Your task to perform on an android device: Open notification settings Image 0: 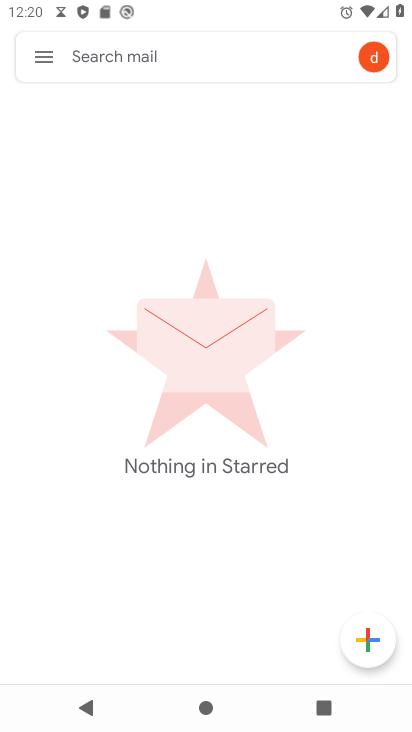
Step 0: press home button
Your task to perform on an android device: Open notification settings Image 1: 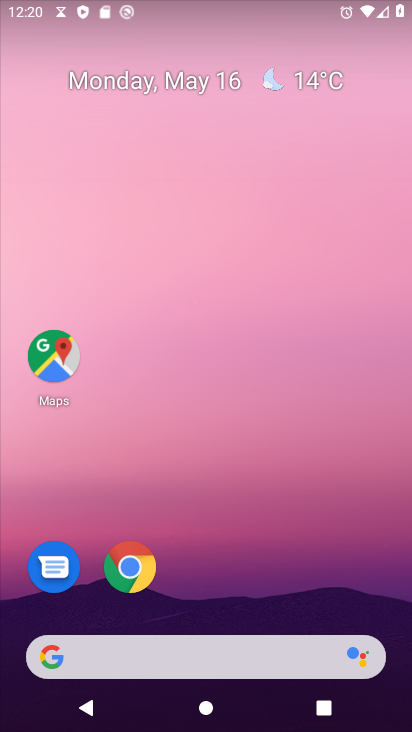
Step 1: drag from (222, 609) to (207, 41)
Your task to perform on an android device: Open notification settings Image 2: 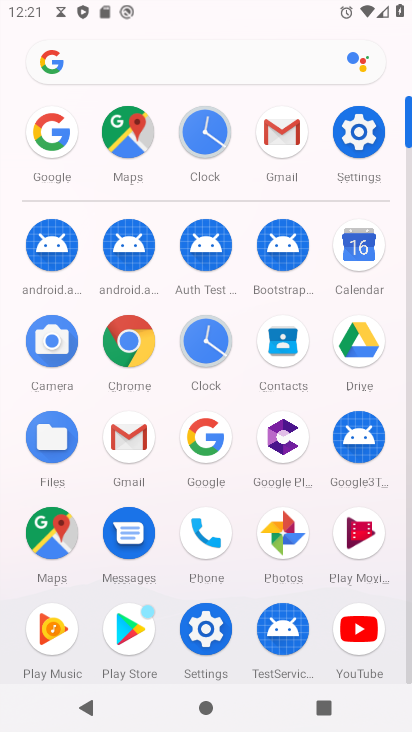
Step 2: click (367, 141)
Your task to perform on an android device: Open notification settings Image 3: 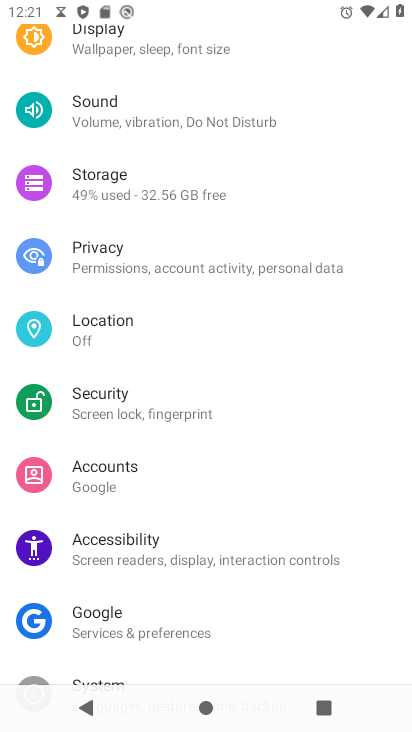
Step 3: drag from (201, 237) to (241, 455)
Your task to perform on an android device: Open notification settings Image 4: 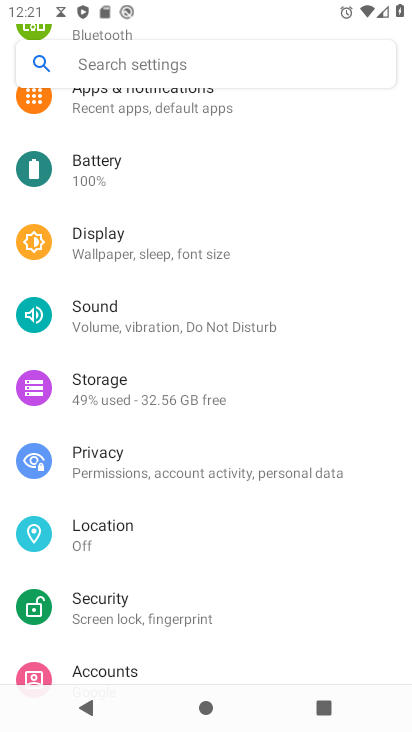
Step 4: drag from (240, 248) to (268, 656)
Your task to perform on an android device: Open notification settings Image 5: 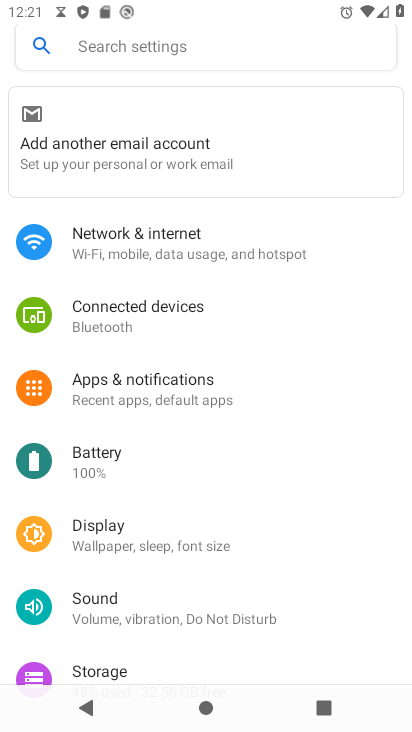
Step 5: click (215, 386)
Your task to perform on an android device: Open notification settings Image 6: 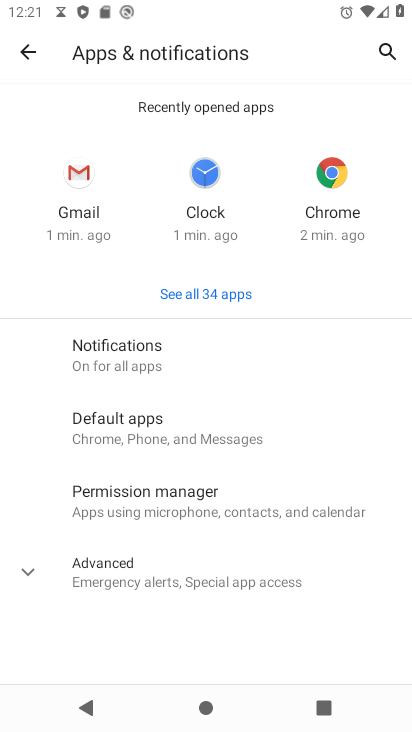
Step 6: click (114, 371)
Your task to perform on an android device: Open notification settings Image 7: 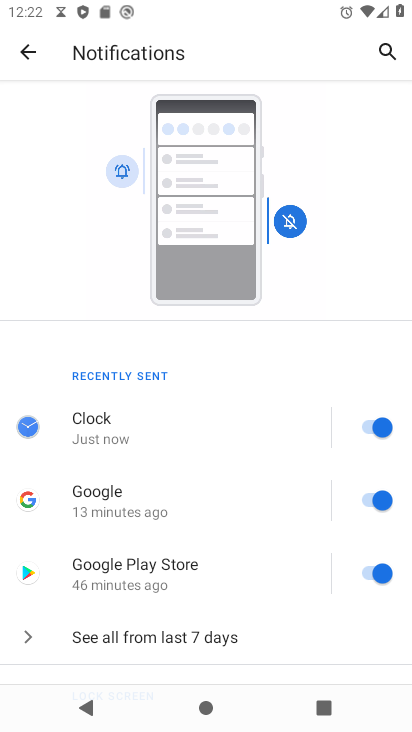
Step 7: task complete